Your task to perform on an android device: Open sound settings Image 0: 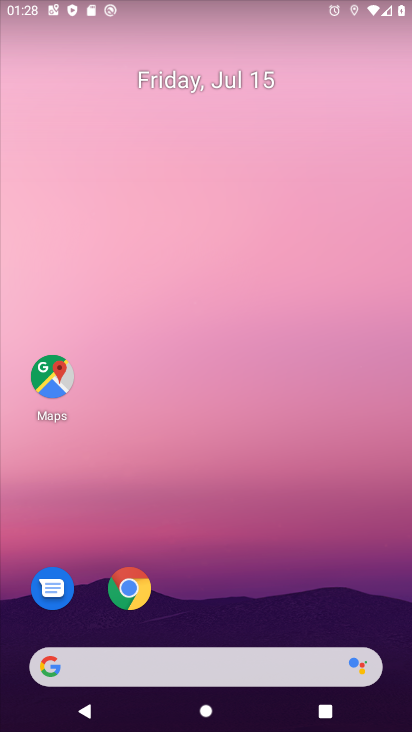
Step 0: drag from (375, 588) to (324, 36)
Your task to perform on an android device: Open sound settings Image 1: 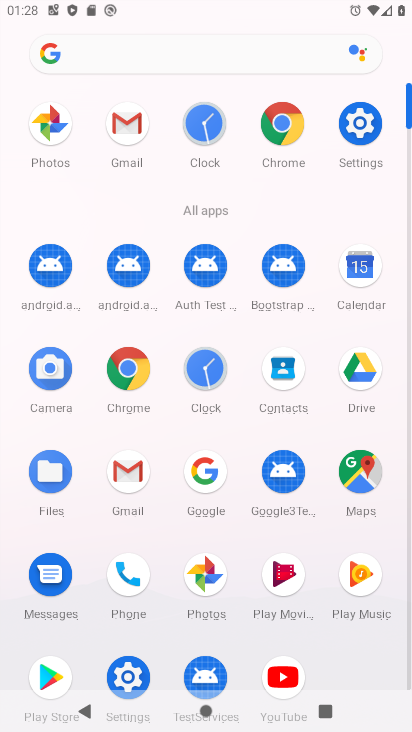
Step 1: click (127, 676)
Your task to perform on an android device: Open sound settings Image 2: 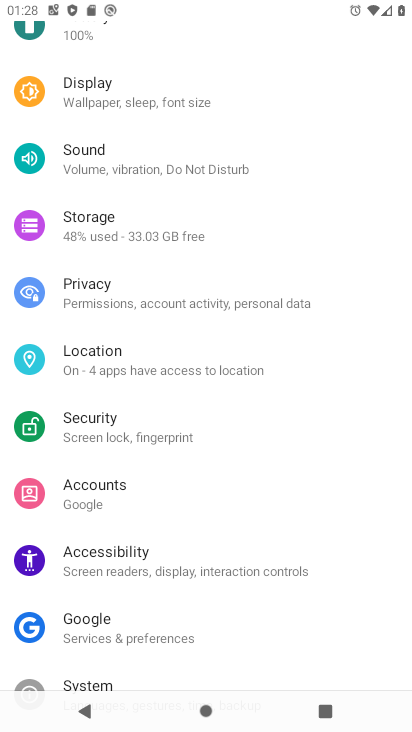
Step 2: click (69, 163)
Your task to perform on an android device: Open sound settings Image 3: 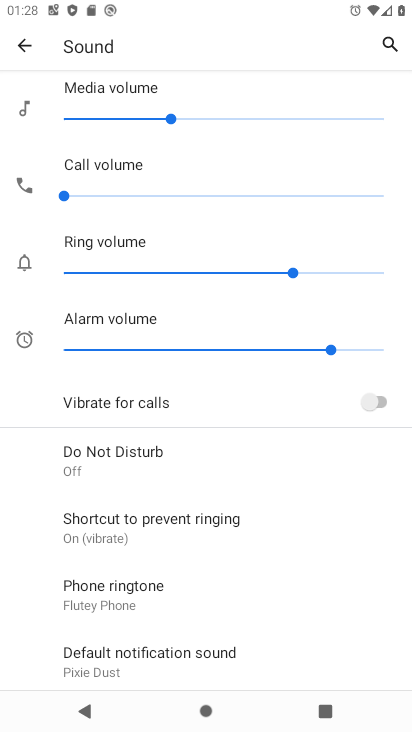
Step 3: drag from (317, 566) to (308, 151)
Your task to perform on an android device: Open sound settings Image 4: 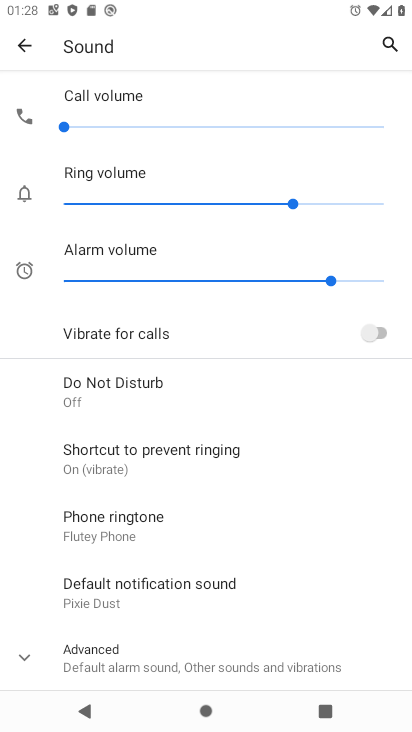
Step 4: click (24, 660)
Your task to perform on an android device: Open sound settings Image 5: 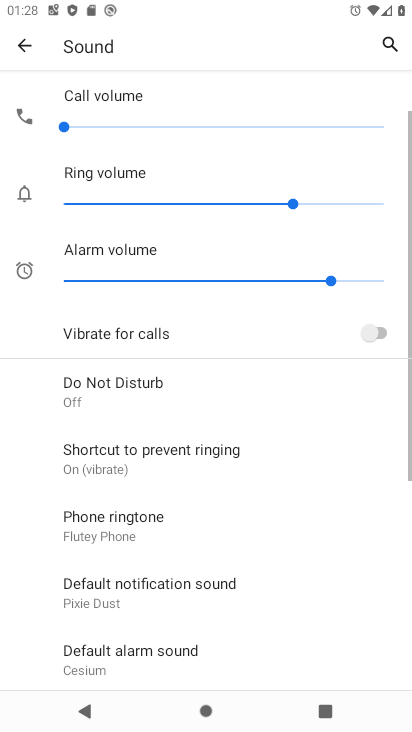
Step 5: task complete